Your task to perform on an android device: Open sound settings Image 0: 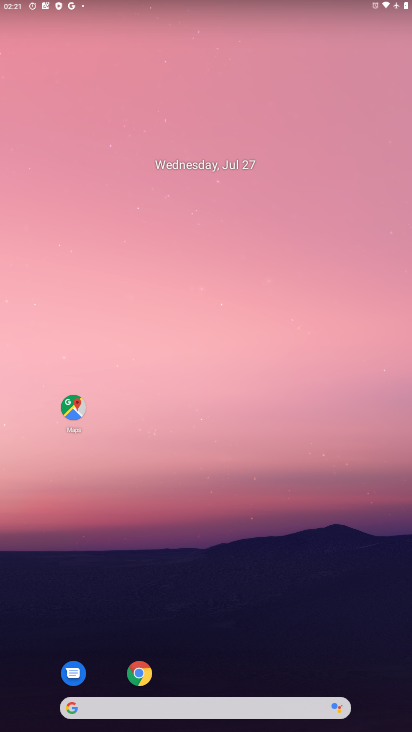
Step 0: drag from (204, 519) to (195, 24)
Your task to perform on an android device: Open sound settings Image 1: 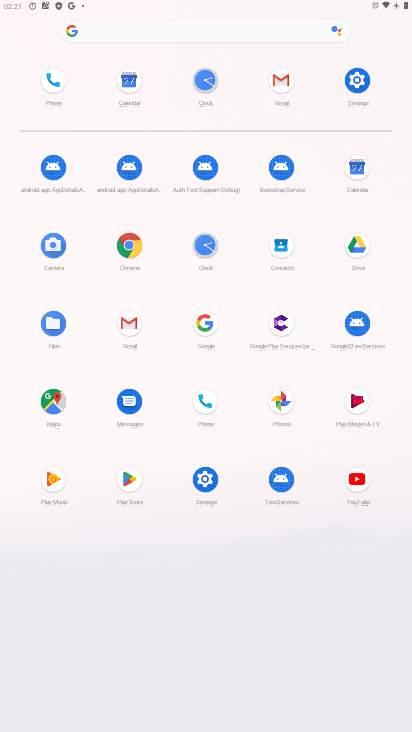
Step 1: click (346, 84)
Your task to perform on an android device: Open sound settings Image 2: 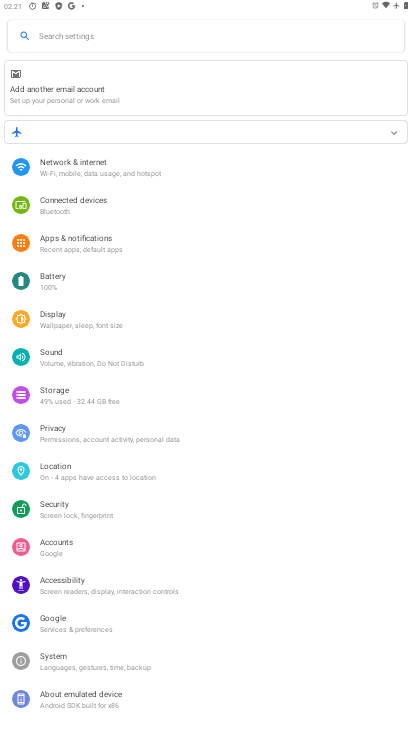
Step 2: click (49, 364)
Your task to perform on an android device: Open sound settings Image 3: 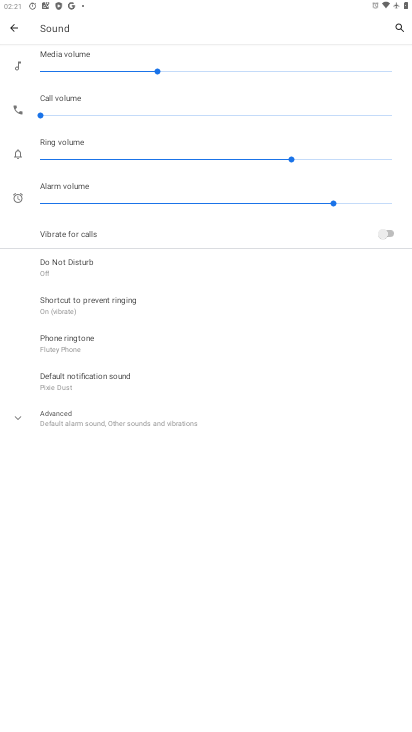
Step 3: task complete